Your task to perform on an android device: Search for sushi restaurants on Maps Image 0: 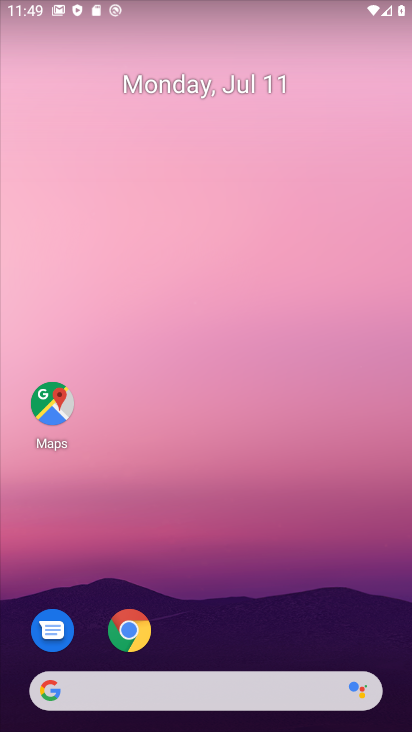
Step 0: drag from (206, 663) to (326, 135)
Your task to perform on an android device: Search for sushi restaurants on Maps Image 1: 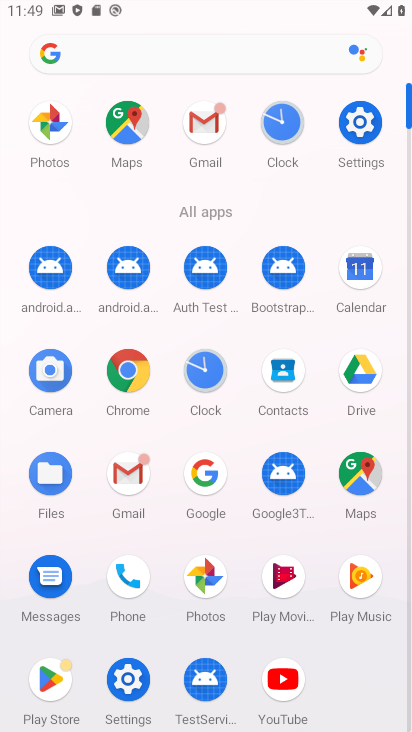
Step 1: click (367, 469)
Your task to perform on an android device: Search for sushi restaurants on Maps Image 2: 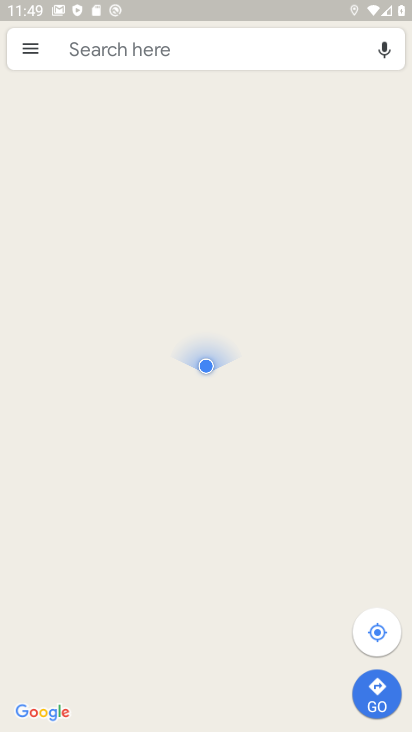
Step 2: click (146, 53)
Your task to perform on an android device: Search for sushi restaurants on Maps Image 3: 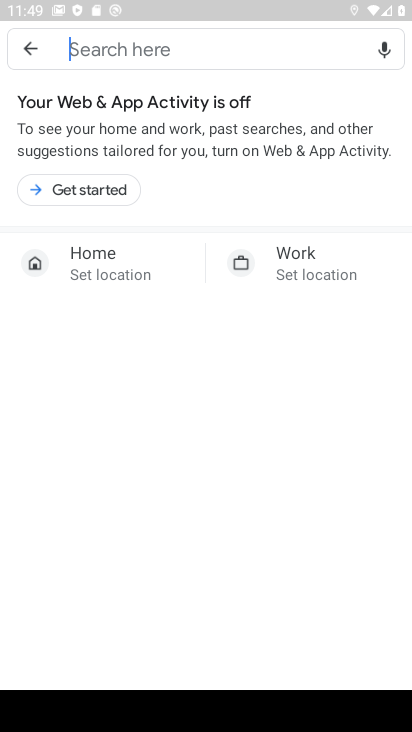
Step 3: type "sushi restaurants"
Your task to perform on an android device: Search for sushi restaurants on Maps Image 4: 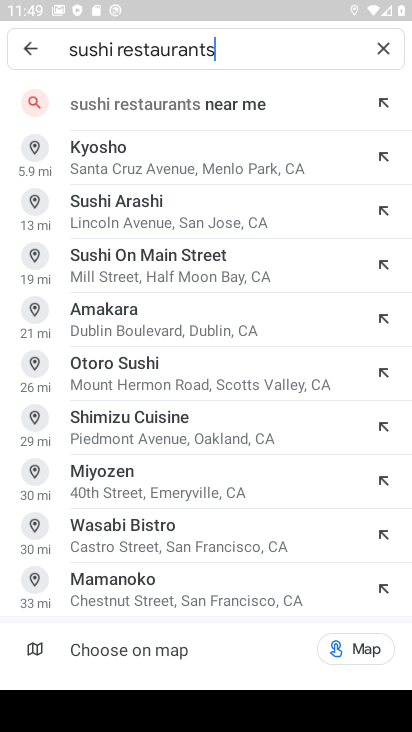
Step 4: press enter
Your task to perform on an android device: Search for sushi restaurants on Maps Image 5: 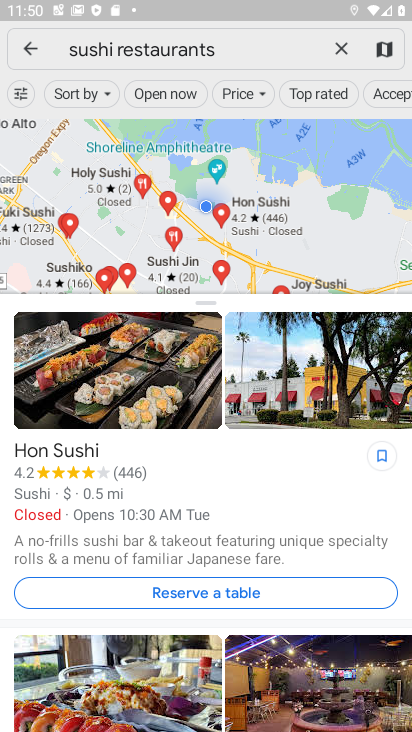
Step 5: task complete